Your task to perform on an android device: toggle airplane mode Image 0: 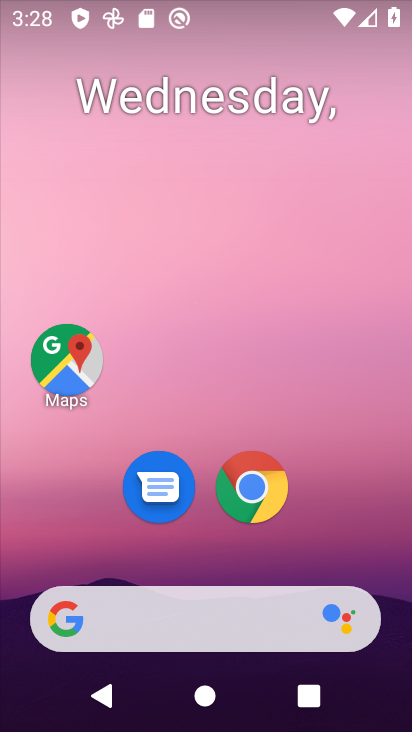
Step 0: drag from (372, 551) to (365, 222)
Your task to perform on an android device: toggle airplane mode Image 1: 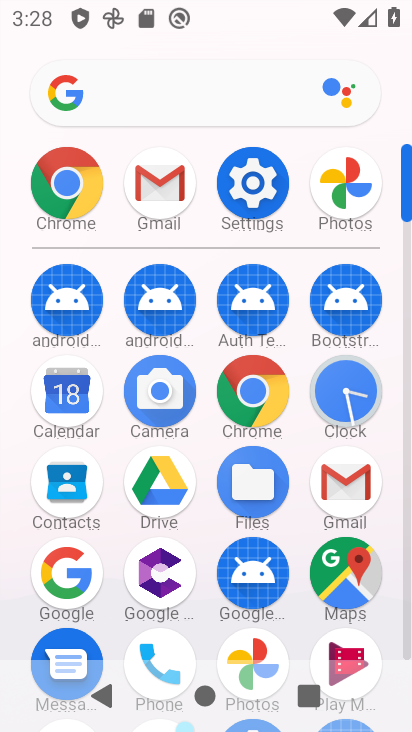
Step 1: click (246, 207)
Your task to perform on an android device: toggle airplane mode Image 2: 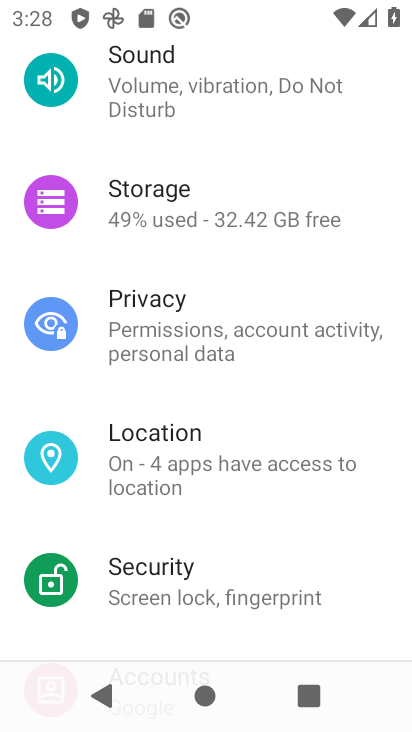
Step 2: drag from (314, 509) to (317, 398)
Your task to perform on an android device: toggle airplane mode Image 3: 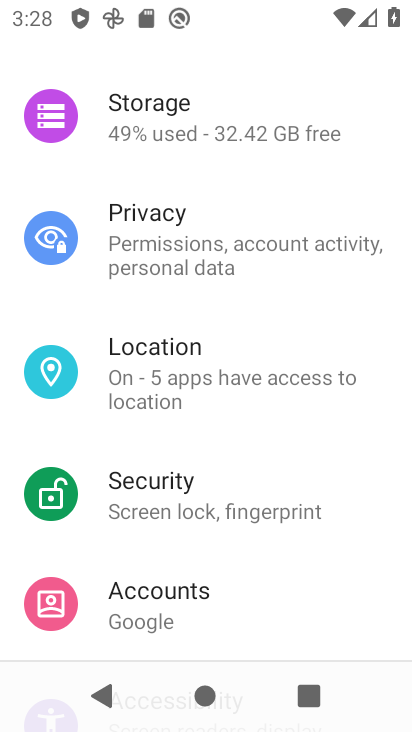
Step 3: drag from (314, 594) to (319, 448)
Your task to perform on an android device: toggle airplane mode Image 4: 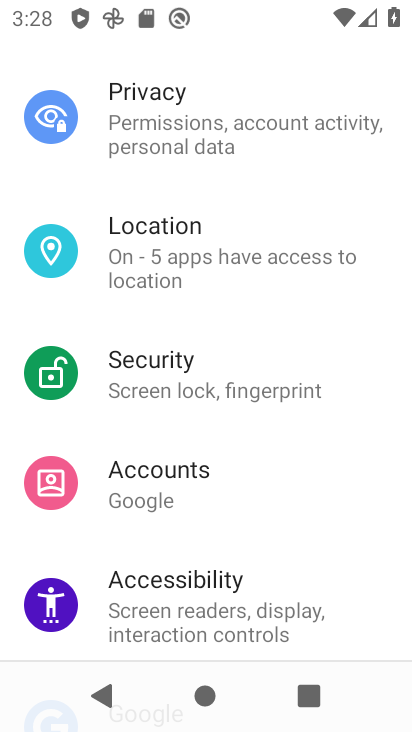
Step 4: drag from (298, 588) to (284, 473)
Your task to perform on an android device: toggle airplane mode Image 5: 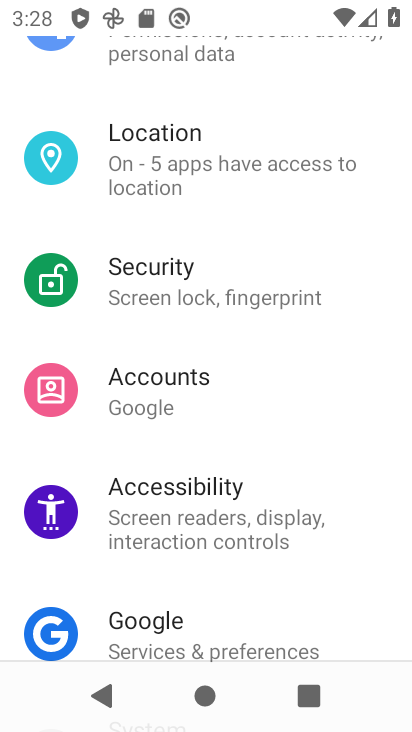
Step 5: drag from (274, 624) to (294, 460)
Your task to perform on an android device: toggle airplane mode Image 6: 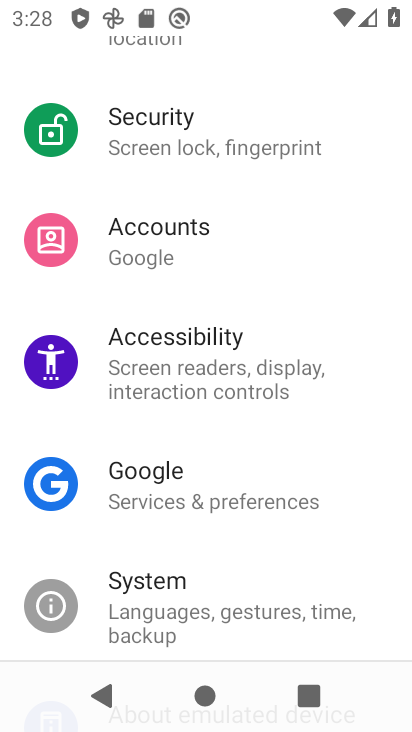
Step 6: drag from (278, 613) to (303, 466)
Your task to perform on an android device: toggle airplane mode Image 7: 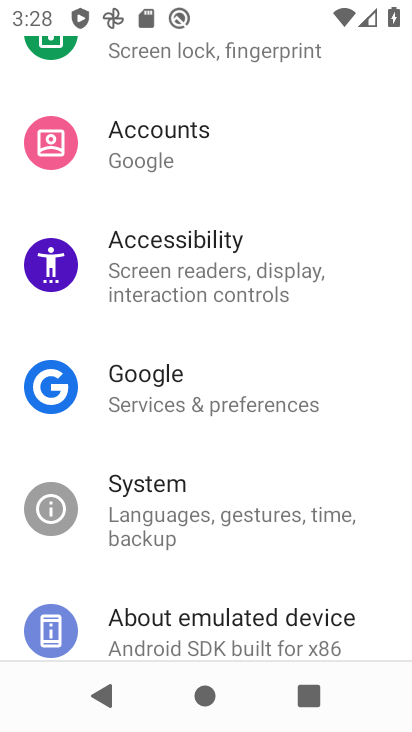
Step 7: drag from (284, 553) to (291, 470)
Your task to perform on an android device: toggle airplane mode Image 8: 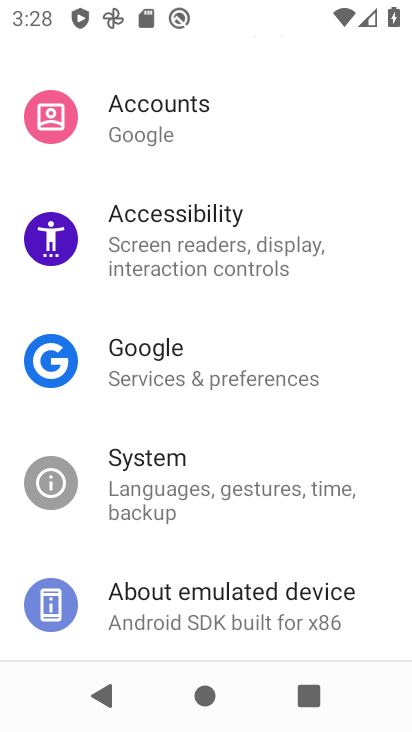
Step 8: drag from (355, 262) to (355, 404)
Your task to perform on an android device: toggle airplane mode Image 9: 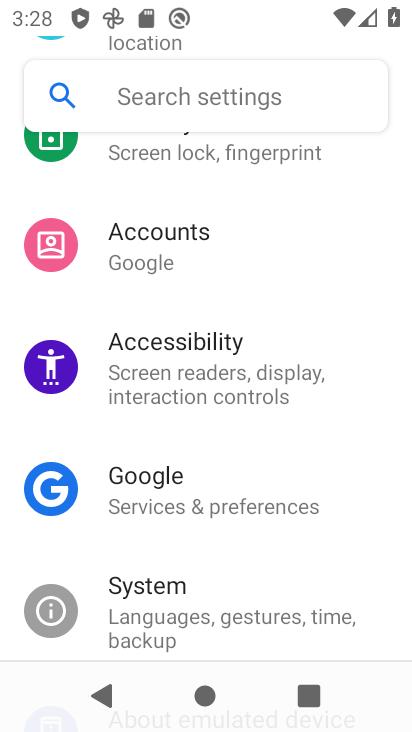
Step 9: drag from (352, 236) to (332, 369)
Your task to perform on an android device: toggle airplane mode Image 10: 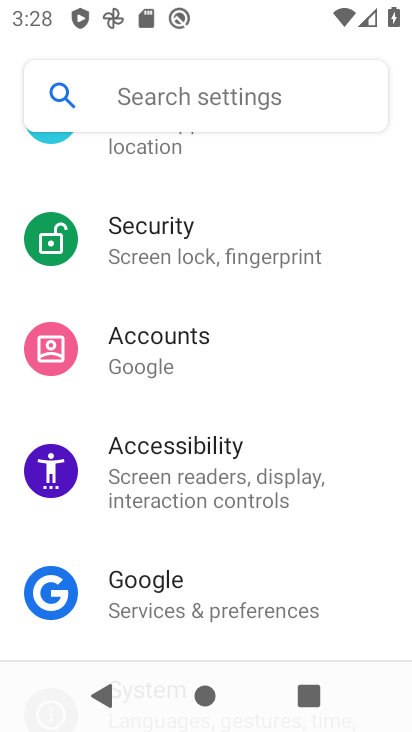
Step 10: drag from (350, 201) to (326, 317)
Your task to perform on an android device: toggle airplane mode Image 11: 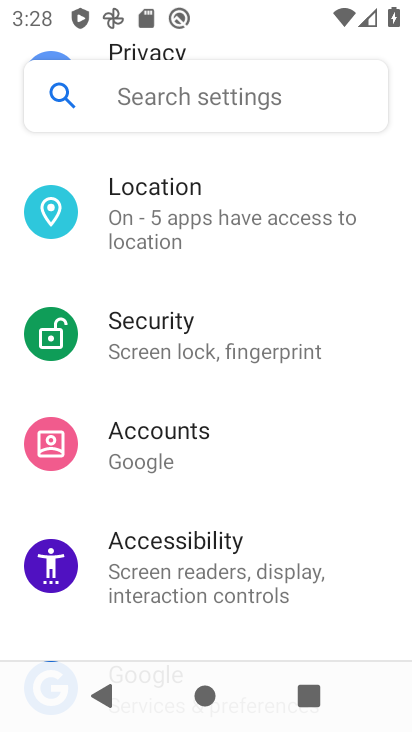
Step 11: drag from (335, 172) to (336, 325)
Your task to perform on an android device: toggle airplane mode Image 12: 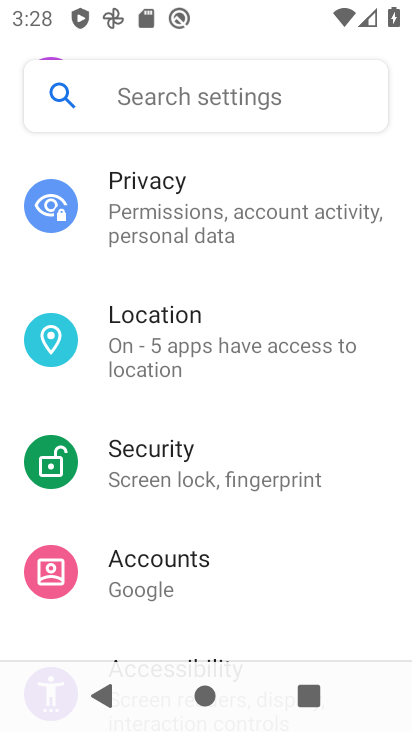
Step 12: drag from (321, 178) to (308, 353)
Your task to perform on an android device: toggle airplane mode Image 13: 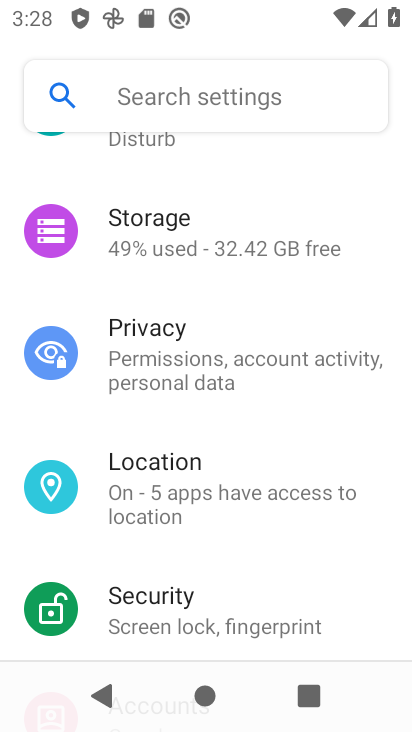
Step 13: drag from (301, 194) to (296, 353)
Your task to perform on an android device: toggle airplane mode Image 14: 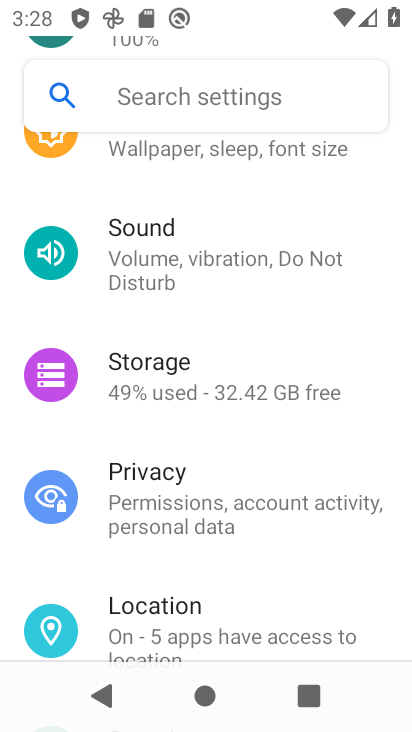
Step 14: drag from (300, 198) to (302, 333)
Your task to perform on an android device: toggle airplane mode Image 15: 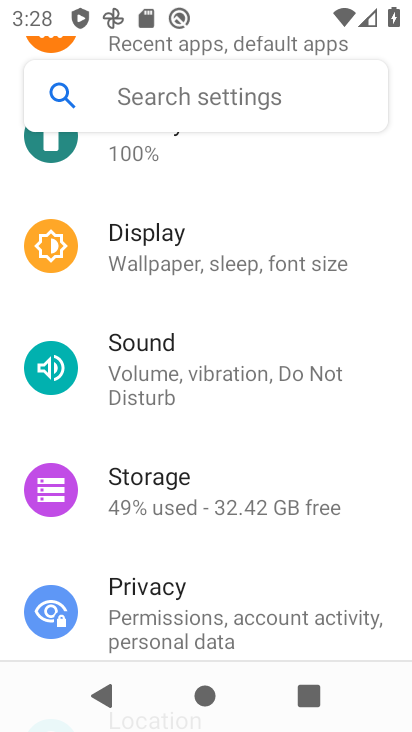
Step 15: drag from (300, 198) to (297, 340)
Your task to perform on an android device: toggle airplane mode Image 16: 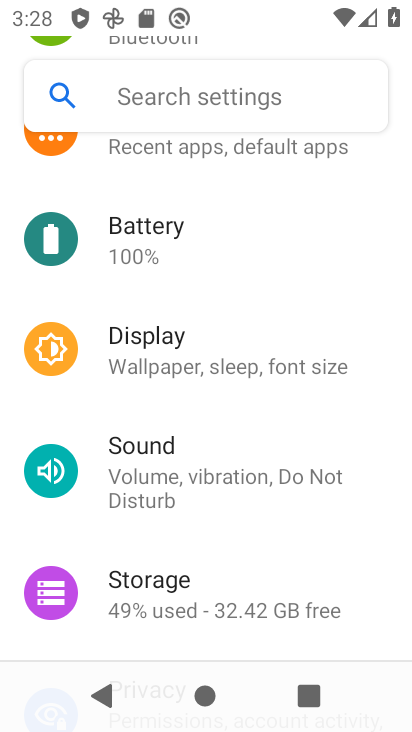
Step 16: drag from (273, 182) to (266, 292)
Your task to perform on an android device: toggle airplane mode Image 17: 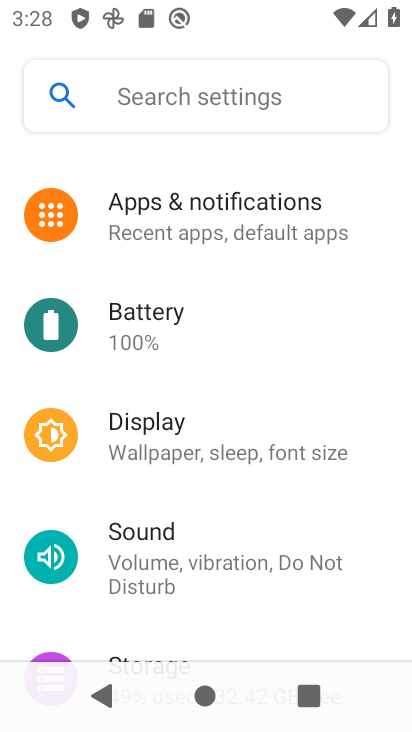
Step 17: drag from (367, 205) to (345, 365)
Your task to perform on an android device: toggle airplane mode Image 18: 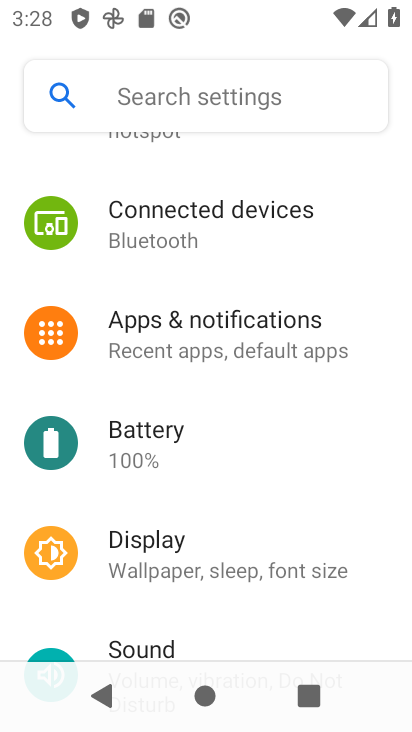
Step 18: drag from (354, 199) to (331, 409)
Your task to perform on an android device: toggle airplane mode Image 19: 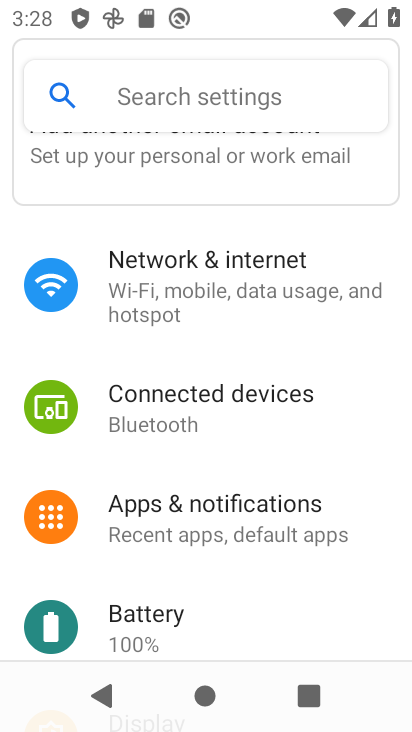
Step 19: click (246, 262)
Your task to perform on an android device: toggle airplane mode Image 20: 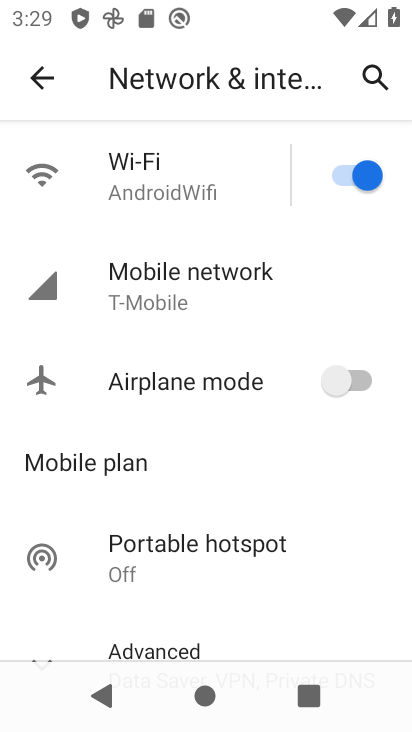
Step 20: drag from (308, 602) to (315, 374)
Your task to perform on an android device: toggle airplane mode Image 21: 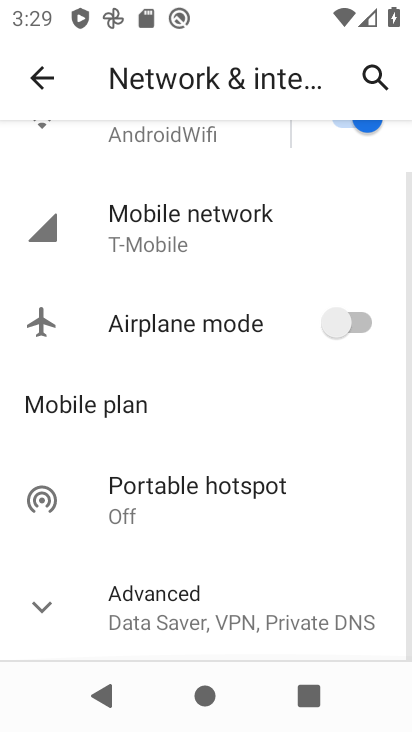
Step 21: drag from (302, 564) to (305, 360)
Your task to perform on an android device: toggle airplane mode Image 22: 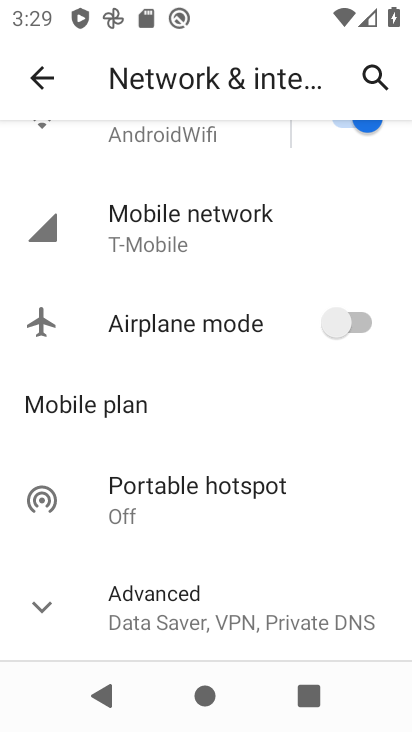
Step 22: drag from (293, 280) to (282, 467)
Your task to perform on an android device: toggle airplane mode Image 23: 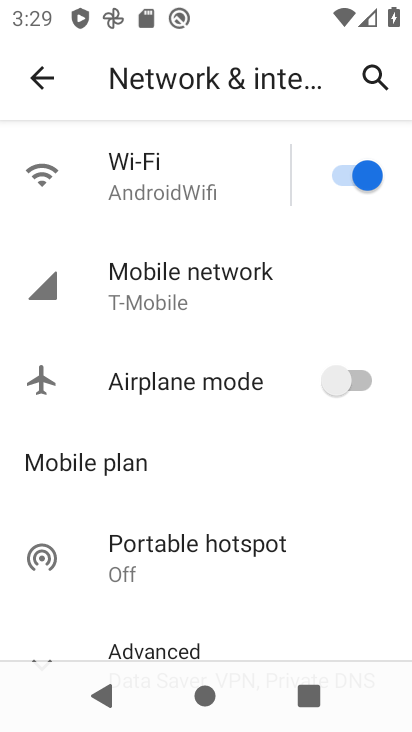
Step 23: drag from (271, 192) to (260, 444)
Your task to perform on an android device: toggle airplane mode Image 24: 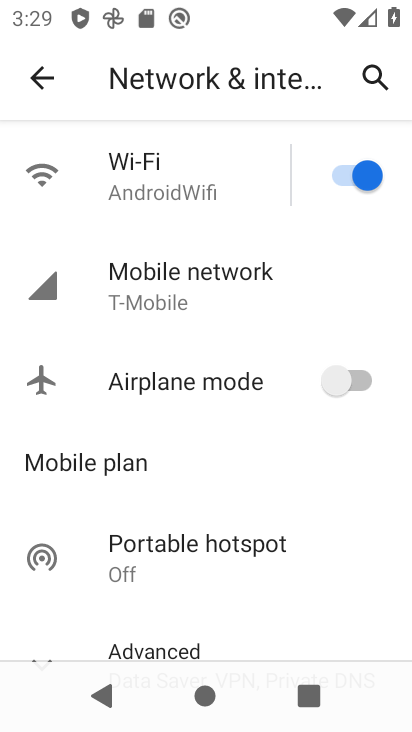
Step 24: click (343, 368)
Your task to perform on an android device: toggle airplane mode Image 25: 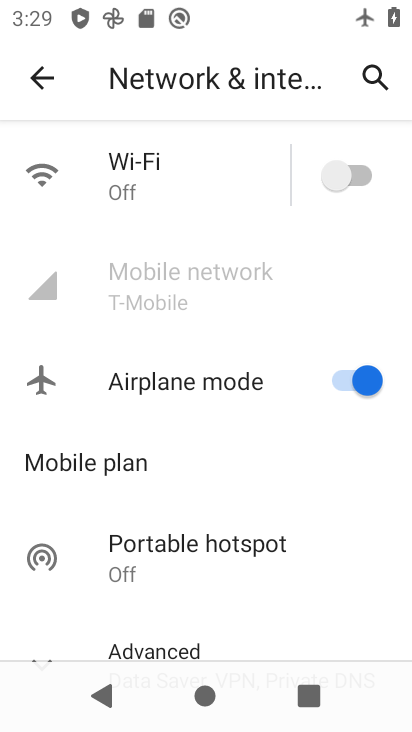
Step 25: task complete